Your task to perform on an android device: Search for "alienware aurora" on target.com, select the first entry, add it to the cart, then select checkout. Image 0: 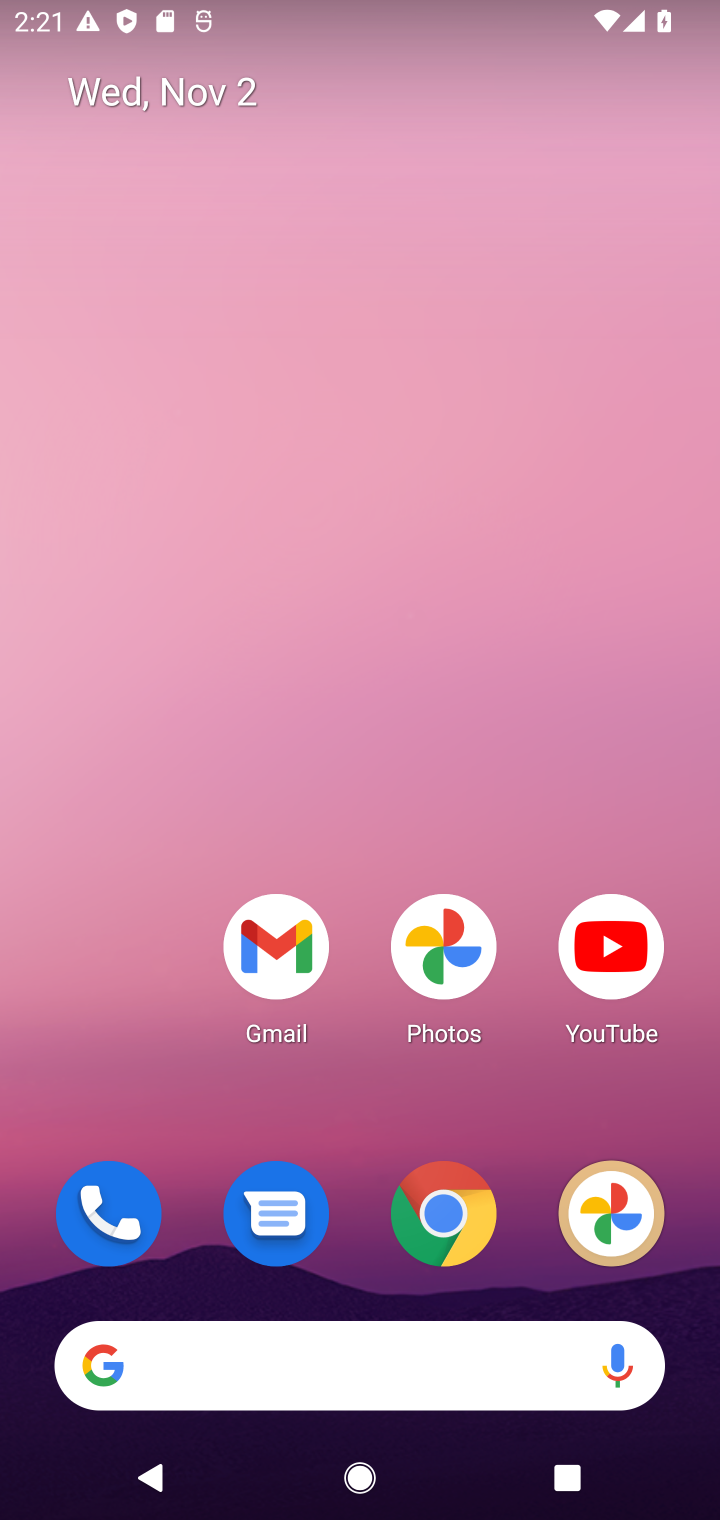
Step 0: click (469, 1215)
Your task to perform on an android device: Search for "alienware aurora" on target.com, select the first entry, add it to the cart, then select checkout. Image 1: 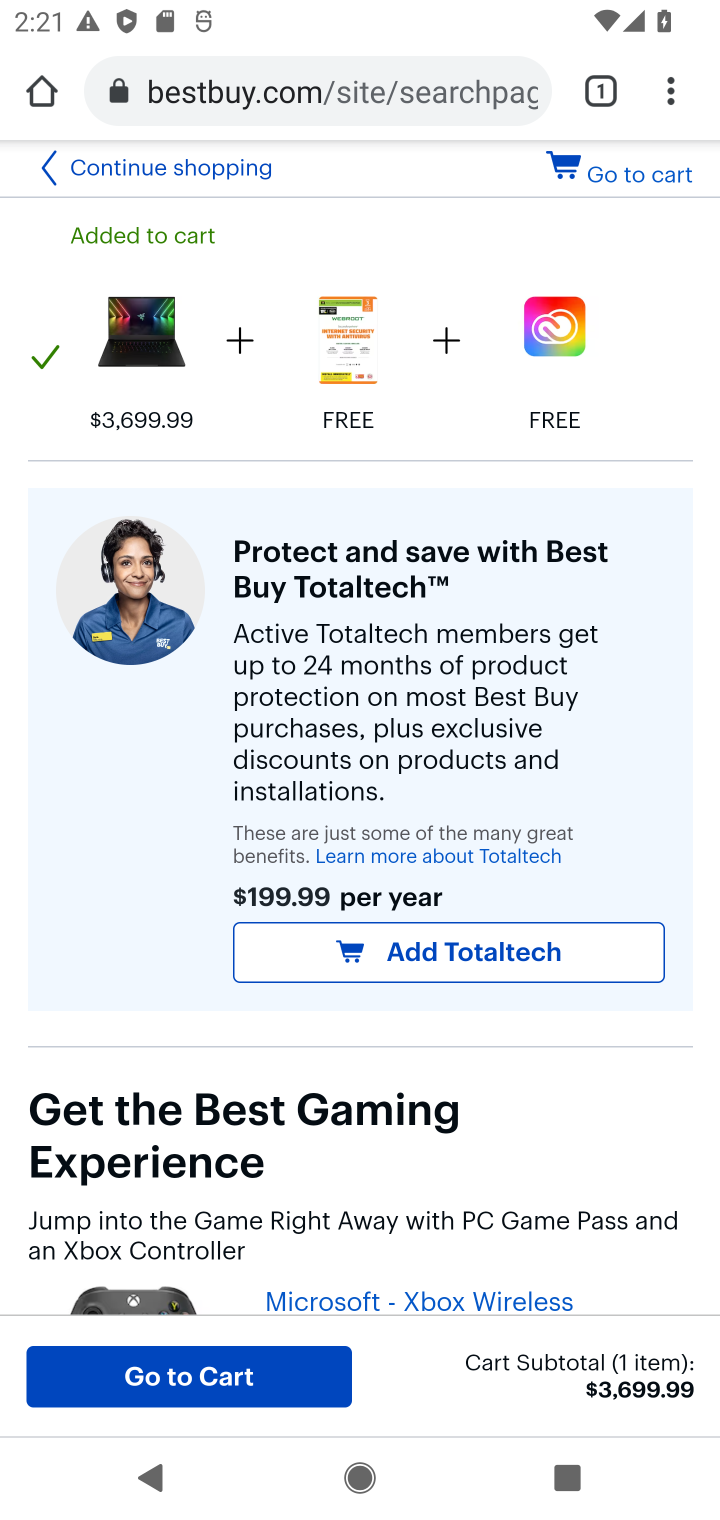
Step 1: click (370, 94)
Your task to perform on an android device: Search for "alienware aurora" on target.com, select the first entry, add it to the cart, then select checkout. Image 2: 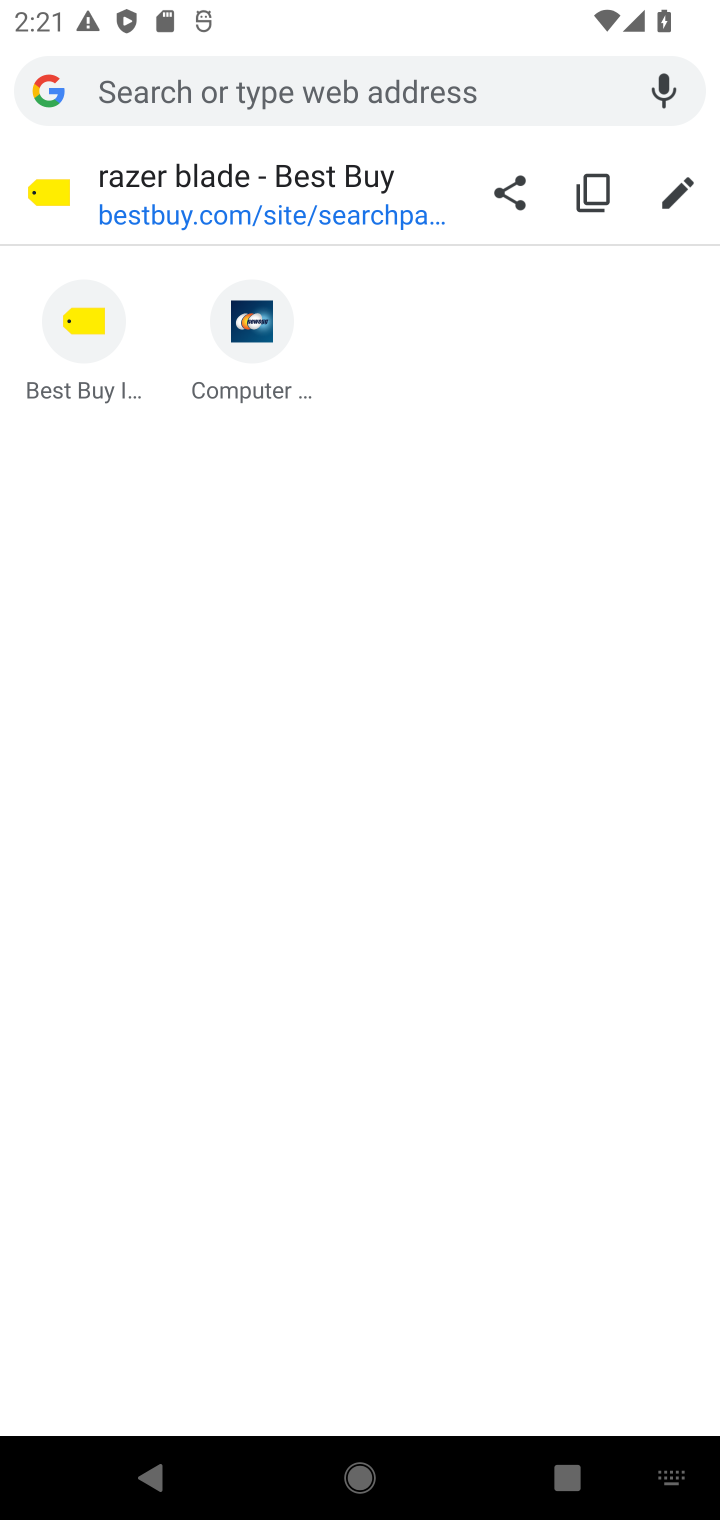
Step 2: type "target.com"
Your task to perform on an android device: Search for "alienware aurora" on target.com, select the first entry, add it to the cart, then select checkout. Image 3: 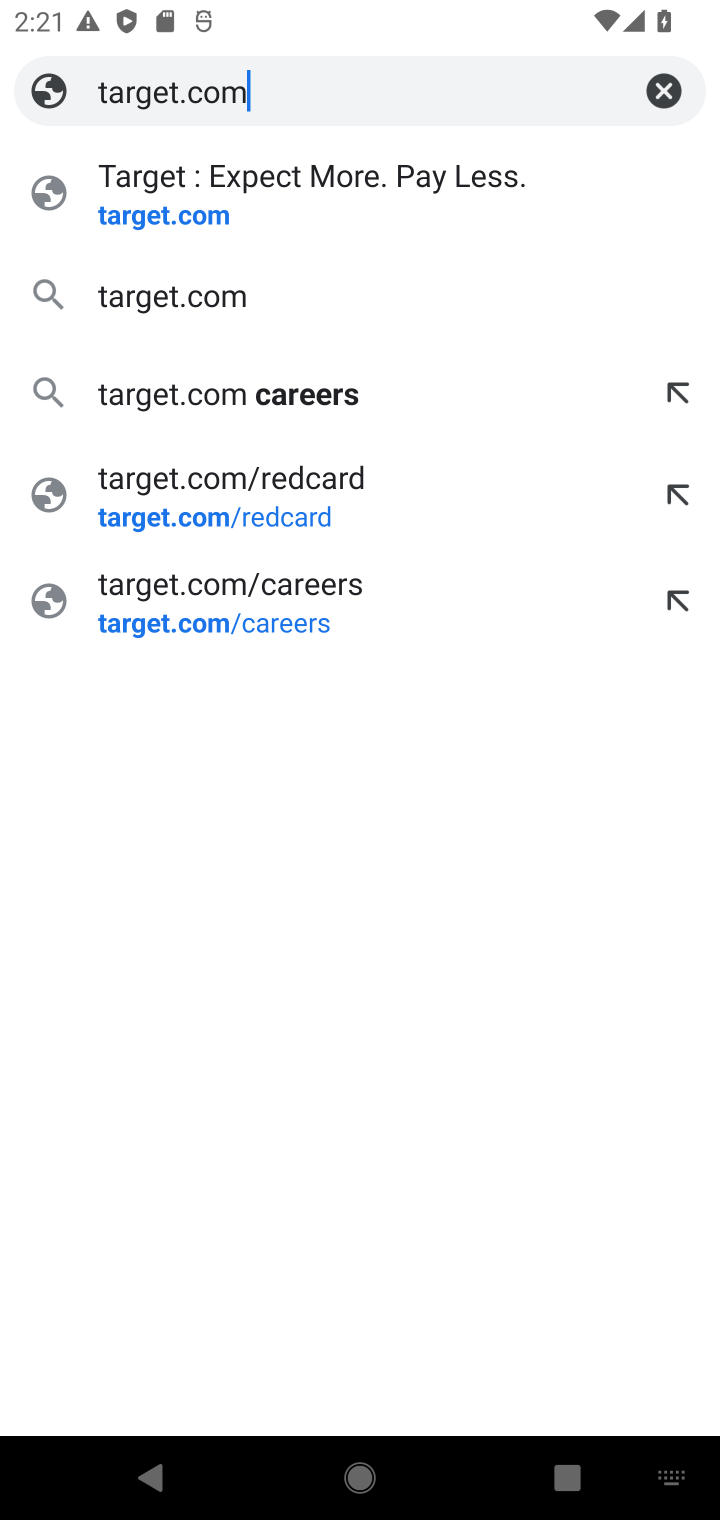
Step 3: click (202, 174)
Your task to perform on an android device: Search for "alienware aurora" on target.com, select the first entry, add it to the cart, then select checkout. Image 4: 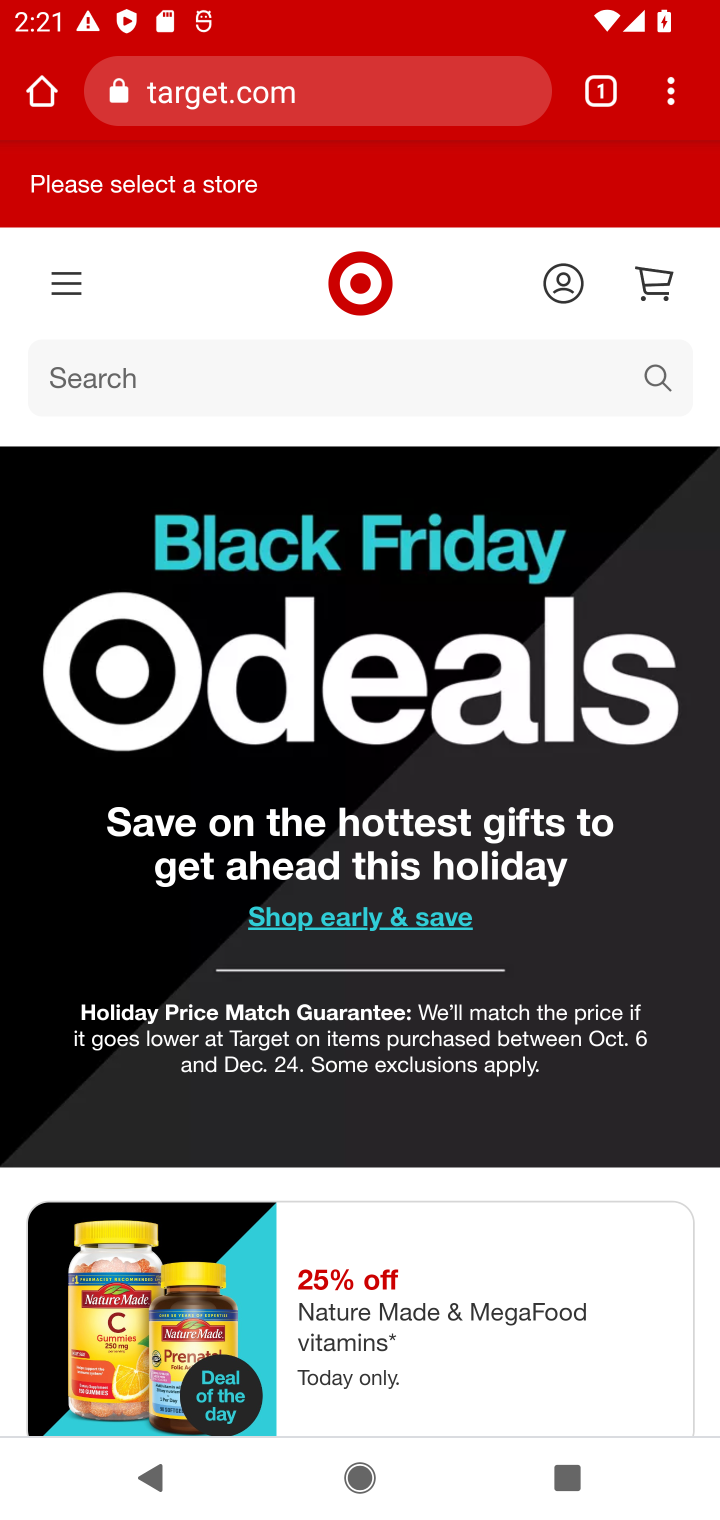
Step 4: click (155, 375)
Your task to perform on an android device: Search for "alienware aurora" on target.com, select the first entry, add it to the cart, then select checkout. Image 5: 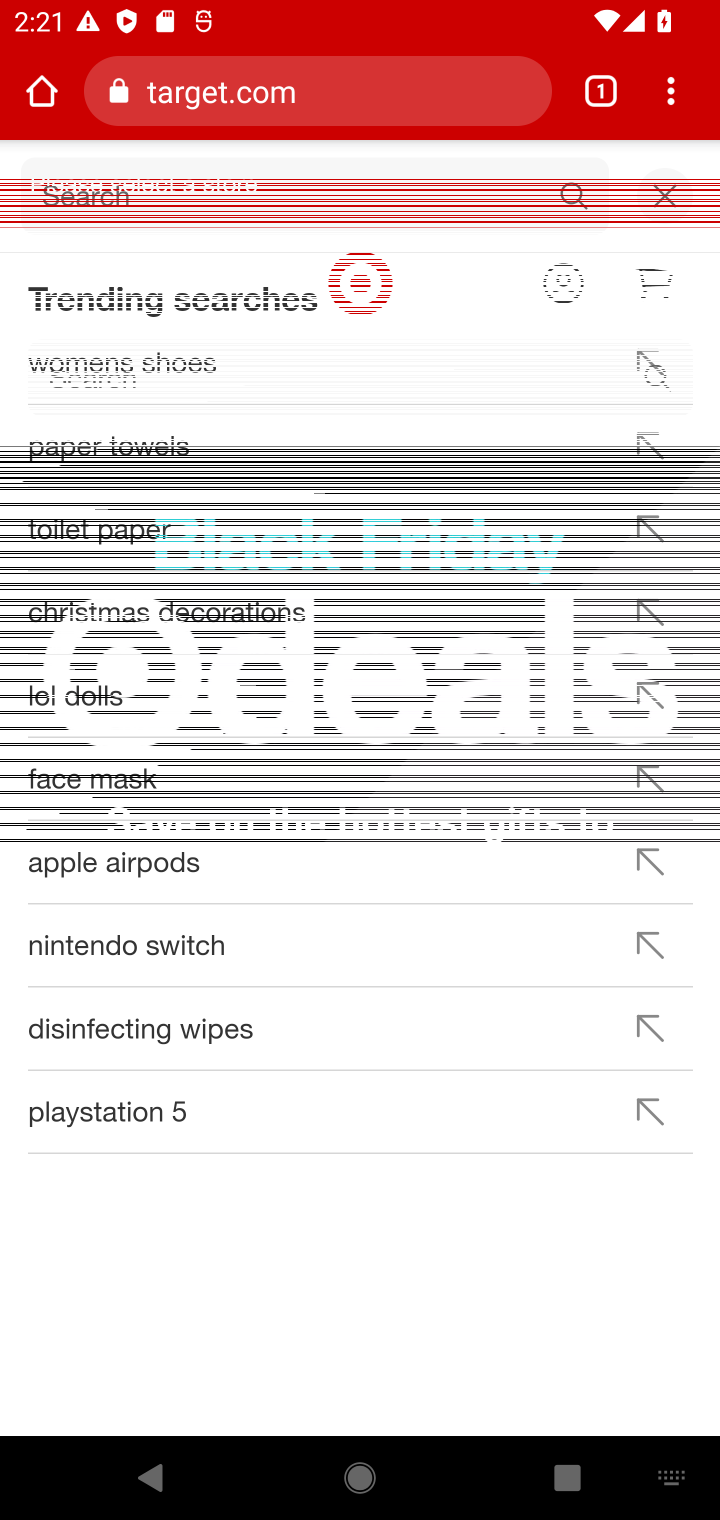
Step 5: type "alienware aurora"
Your task to perform on an android device: Search for "alienware aurora" on target.com, select the first entry, add it to the cart, then select checkout. Image 6: 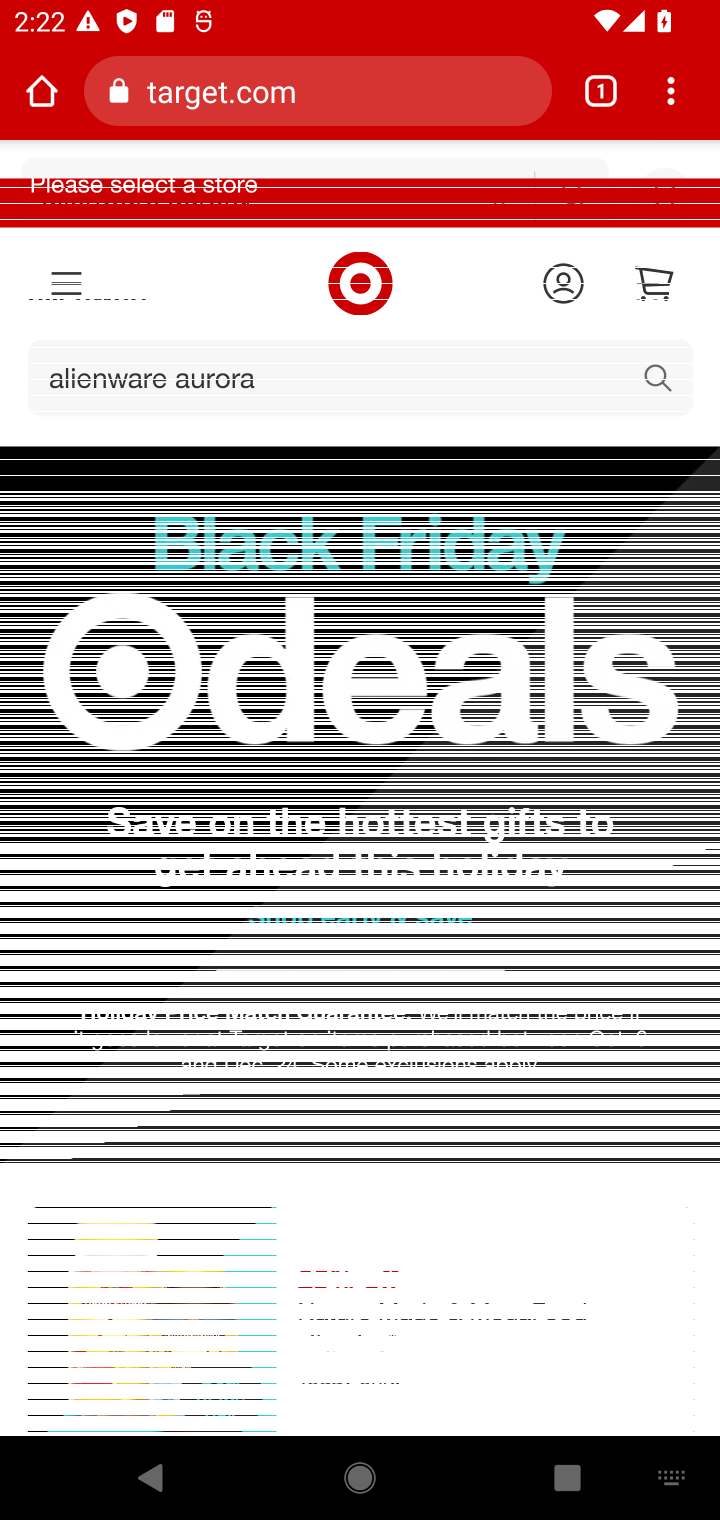
Step 6: press enter
Your task to perform on an android device: Search for "alienware aurora" on target.com, select the first entry, add it to the cart, then select checkout. Image 7: 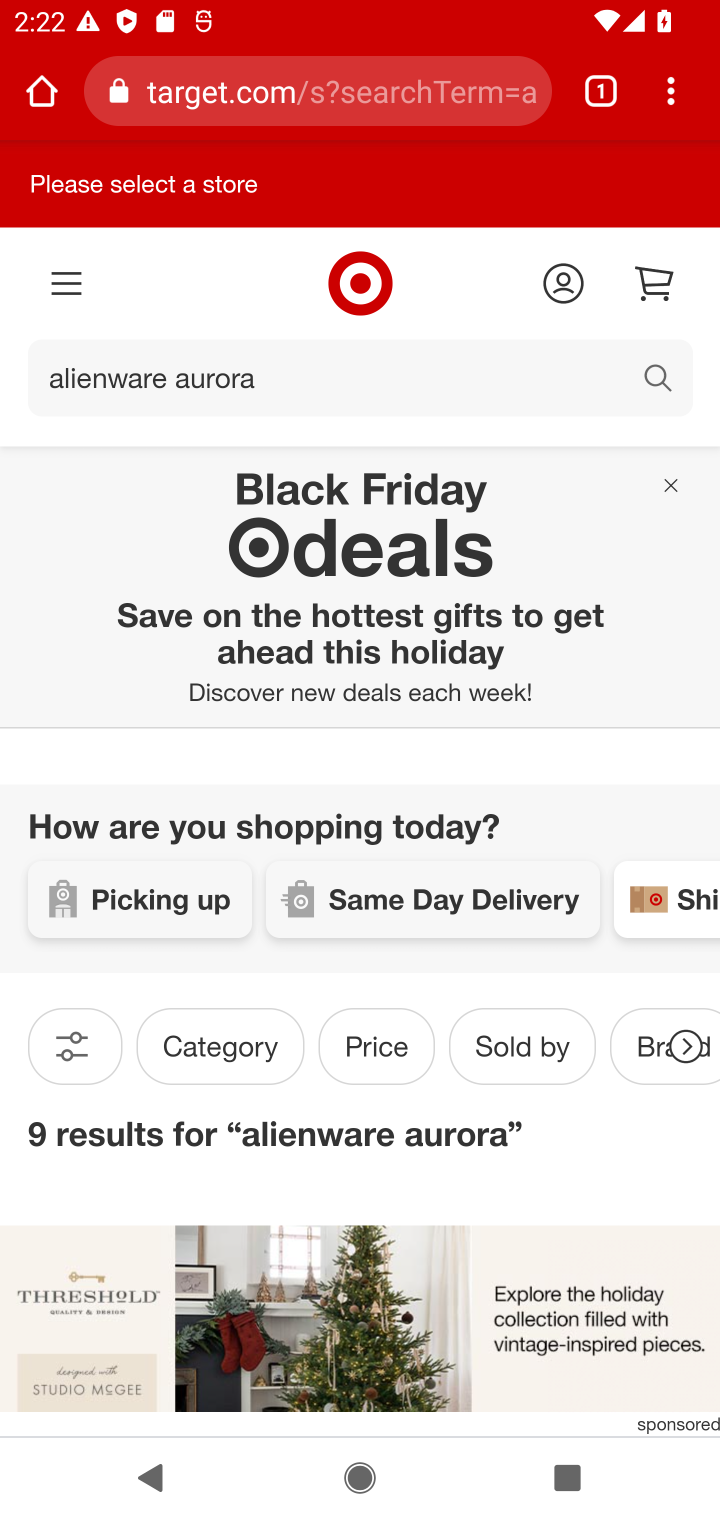
Step 7: drag from (568, 1128) to (546, 677)
Your task to perform on an android device: Search for "alienware aurora" on target.com, select the first entry, add it to the cart, then select checkout. Image 8: 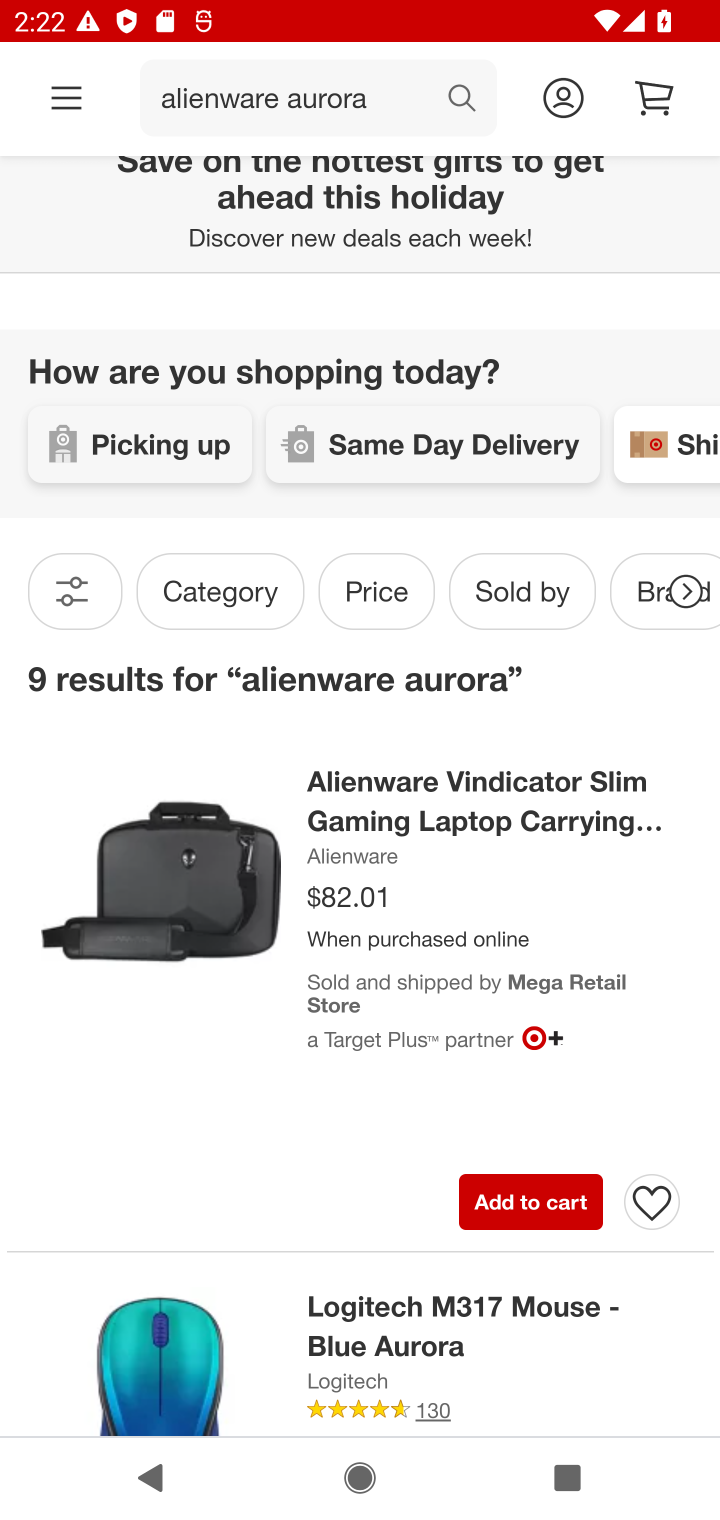
Step 8: click (470, 799)
Your task to perform on an android device: Search for "alienware aurora" on target.com, select the first entry, add it to the cart, then select checkout. Image 9: 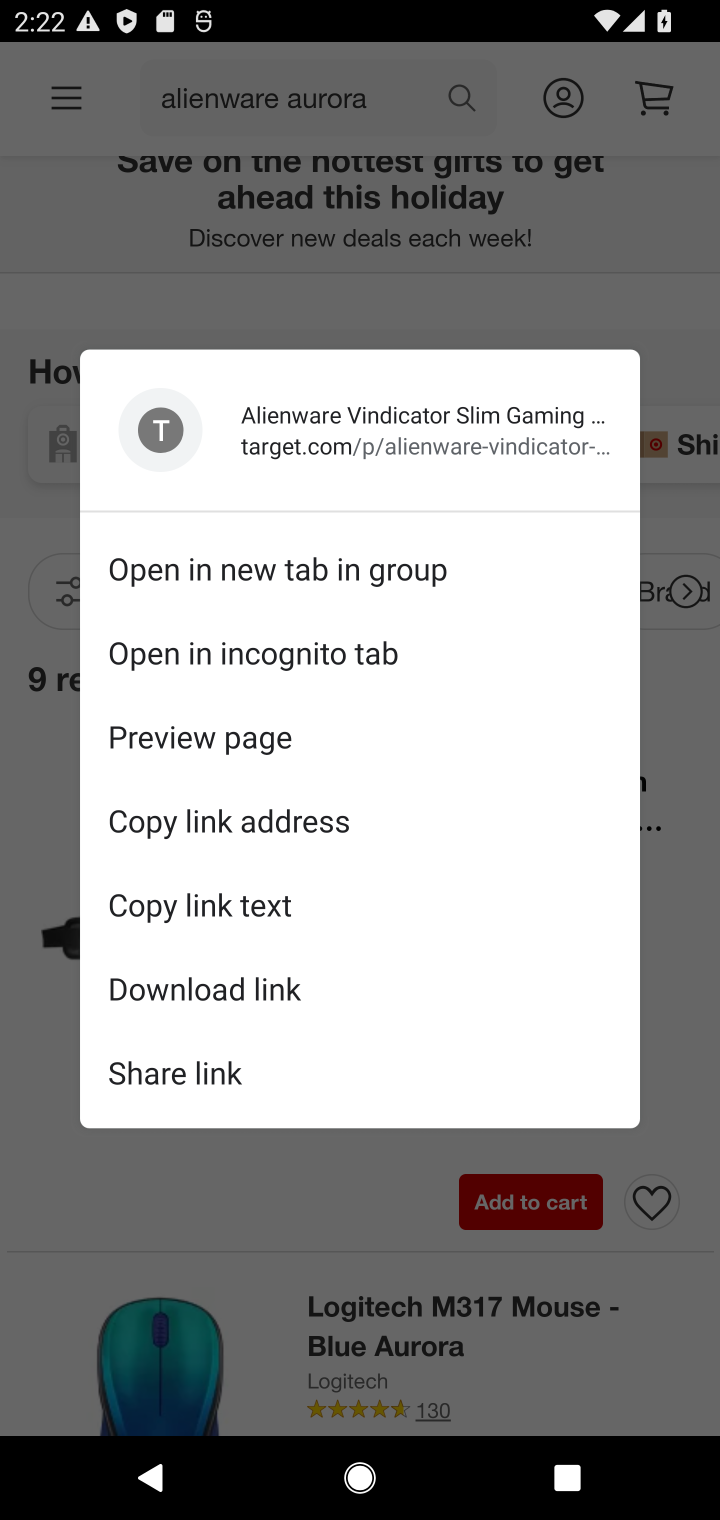
Step 9: click (173, 1167)
Your task to perform on an android device: Search for "alienware aurora" on target.com, select the first entry, add it to the cart, then select checkout. Image 10: 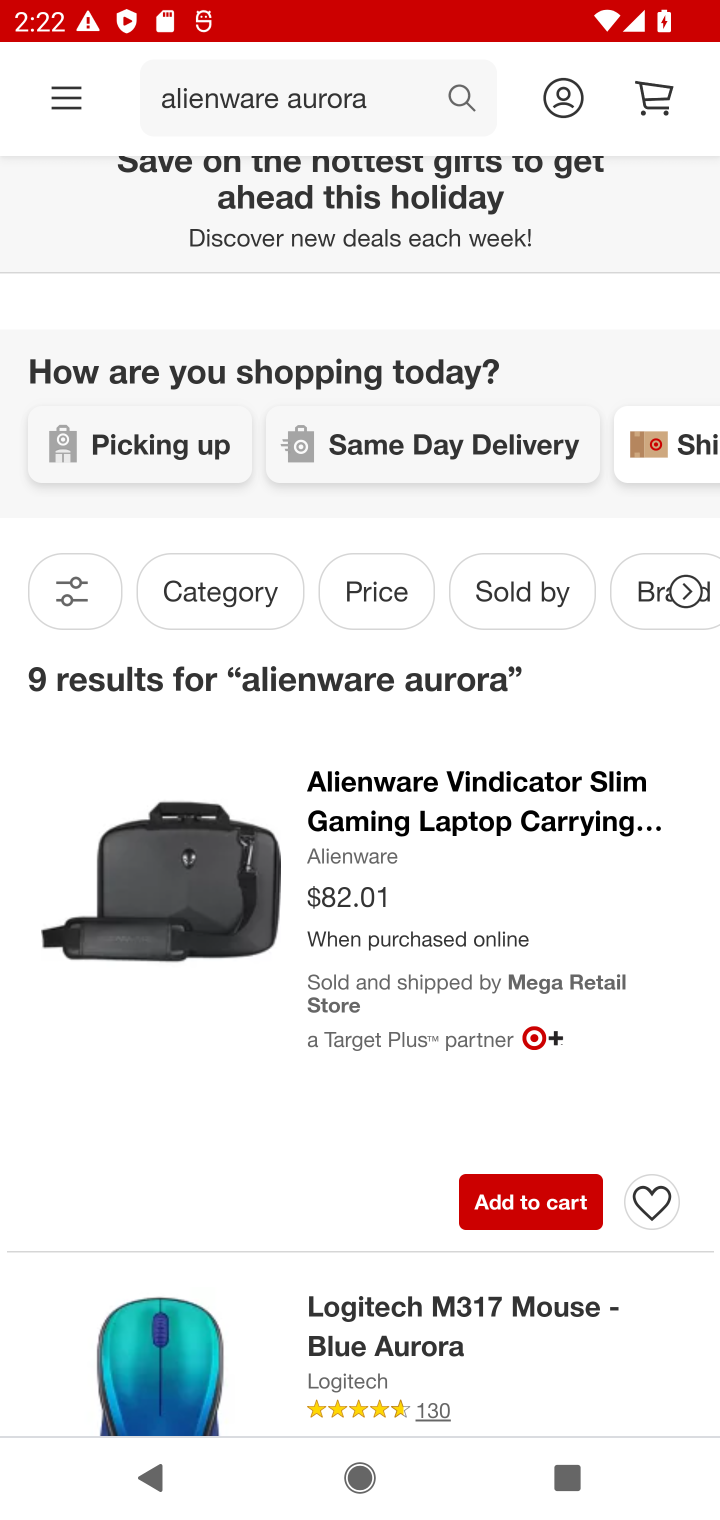
Step 10: click (217, 925)
Your task to perform on an android device: Search for "alienware aurora" on target.com, select the first entry, add it to the cart, then select checkout. Image 11: 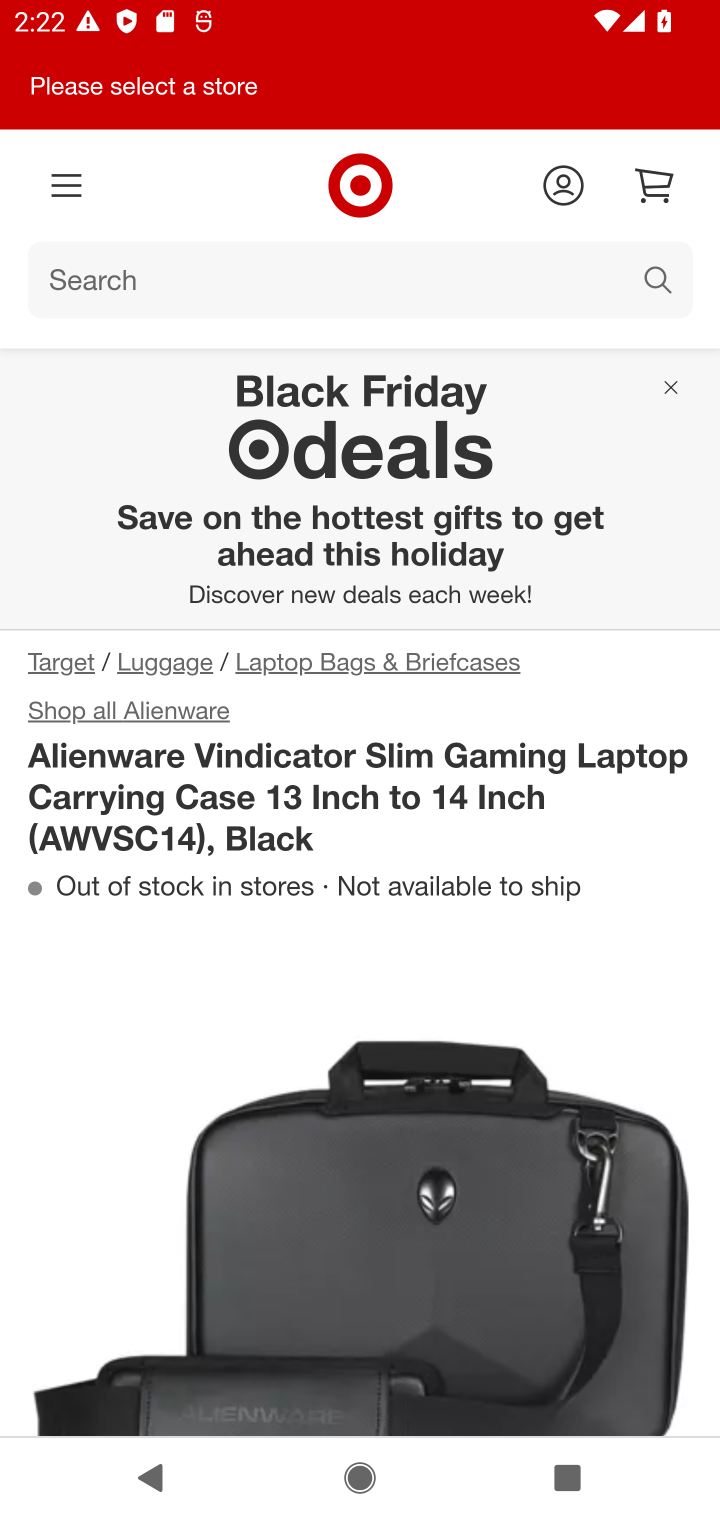
Step 11: drag from (637, 956) to (632, 131)
Your task to perform on an android device: Search for "alienware aurora" on target.com, select the first entry, add it to the cart, then select checkout. Image 12: 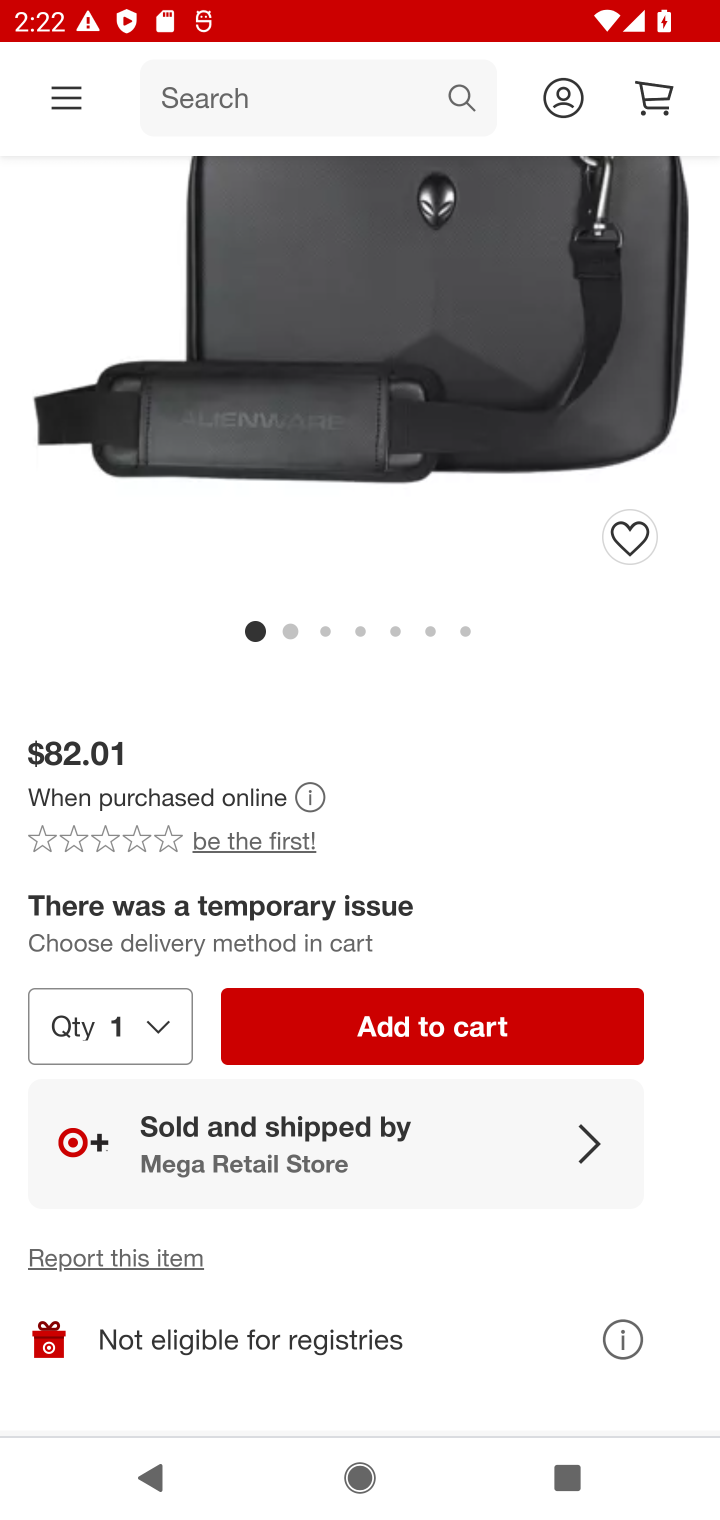
Step 12: click (399, 1028)
Your task to perform on an android device: Search for "alienware aurora" on target.com, select the first entry, add it to the cart, then select checkout. Image 13: 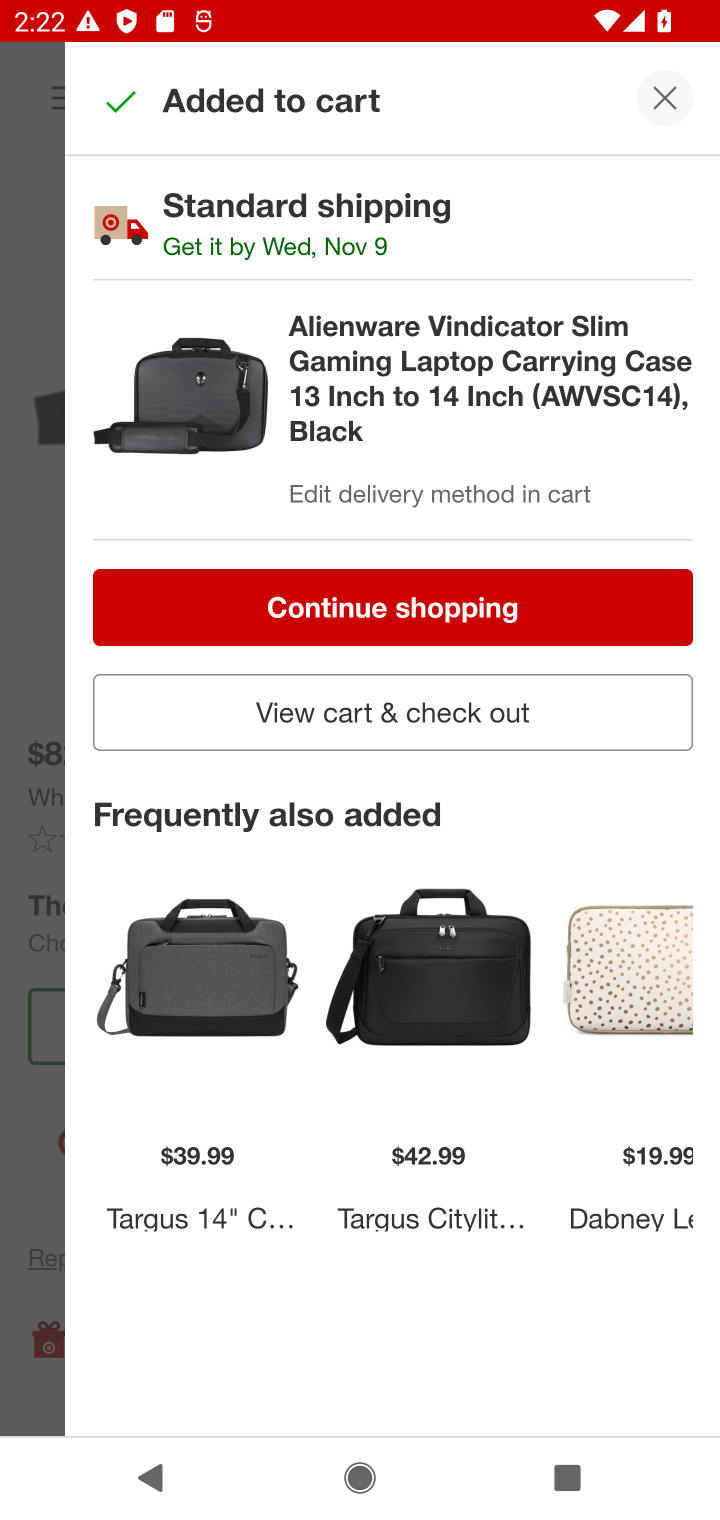
Step 13: click (448, 714)
Your task to perform on an android device: Search for "alienware aurora" on target.com, select the first entry, add it to the cart, then select checkout. Image 14: 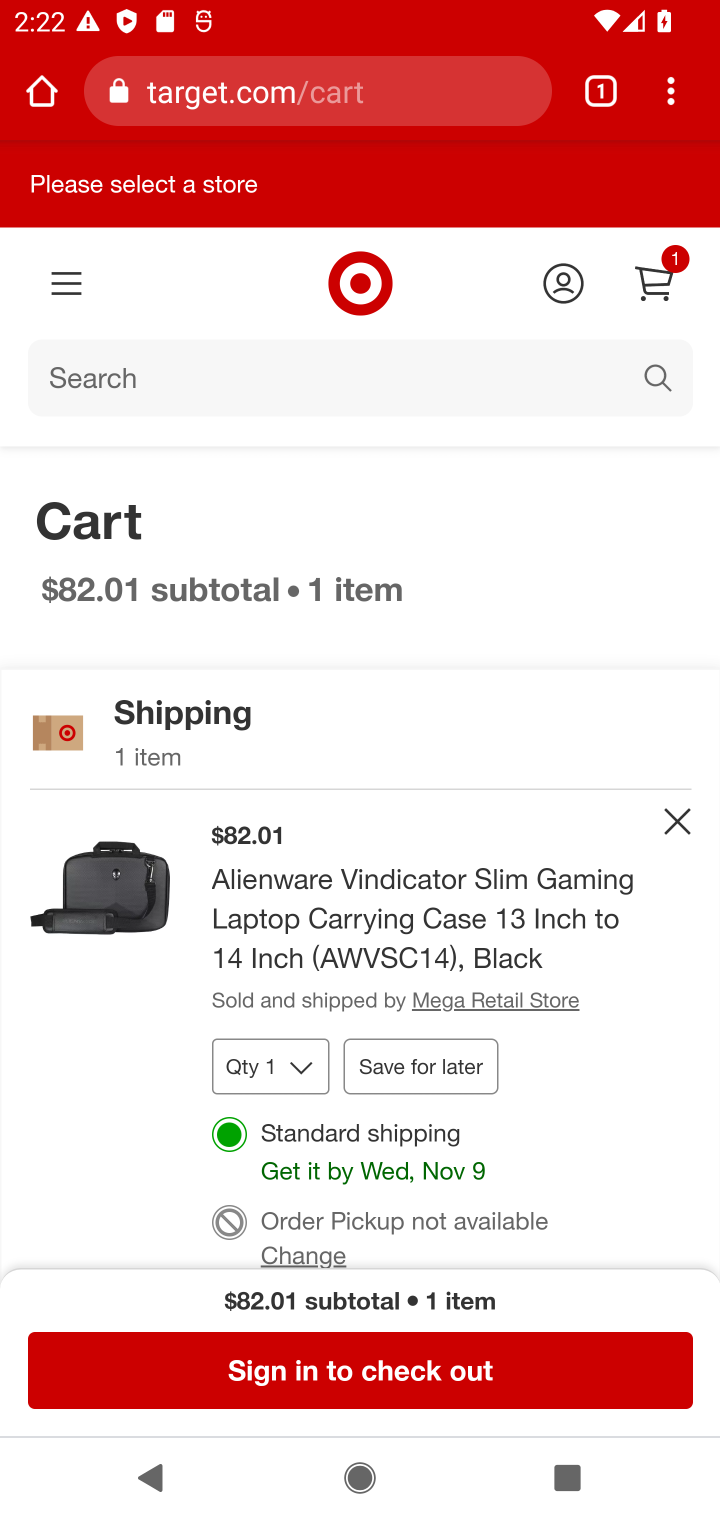
Step 14: click (372, 1382)
Your task to perform on an android device: Search for "alienware aurora" on target.com, select the first entry, add it to the cart, then select checkout. Image 15: 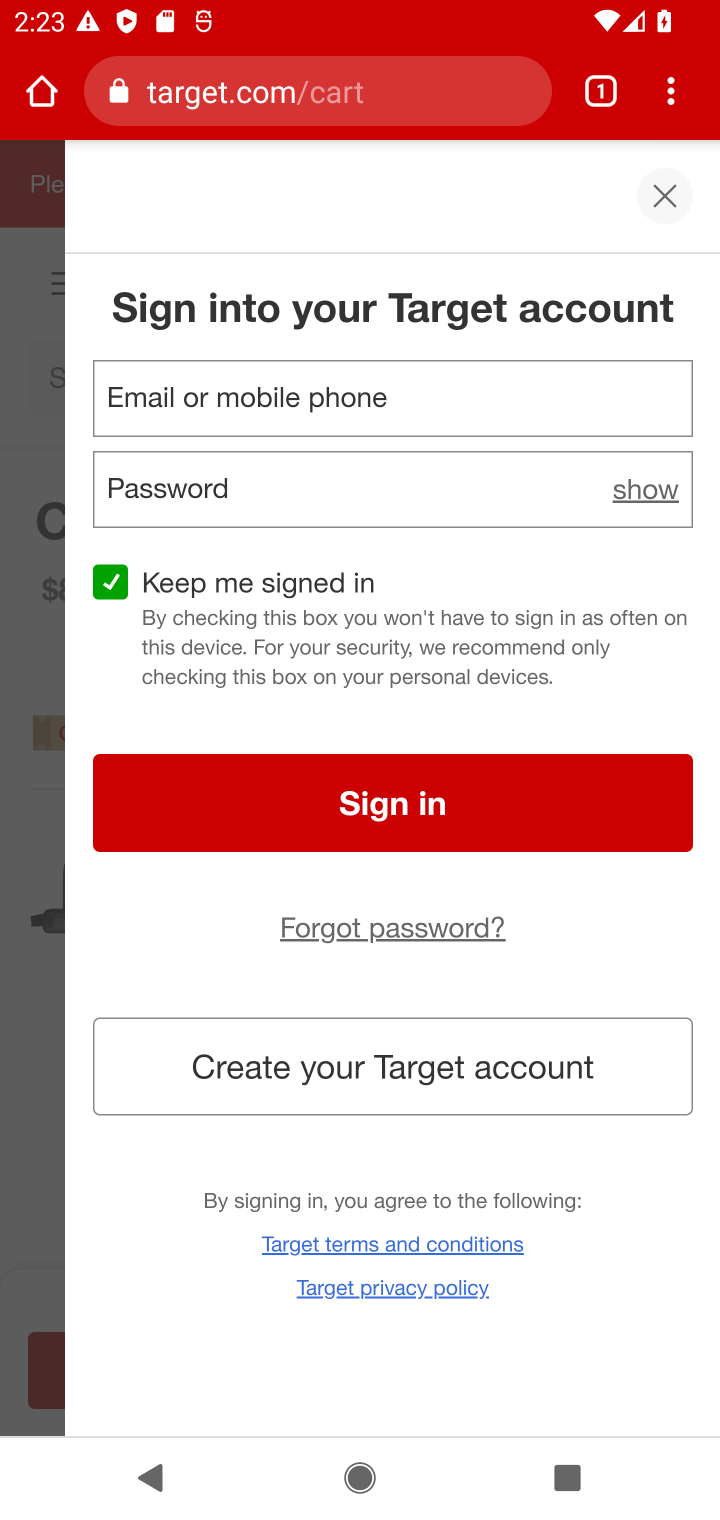
Step 15: task complete